Your task to perform on an android device: move a message to another label in the gmail app Image 0: 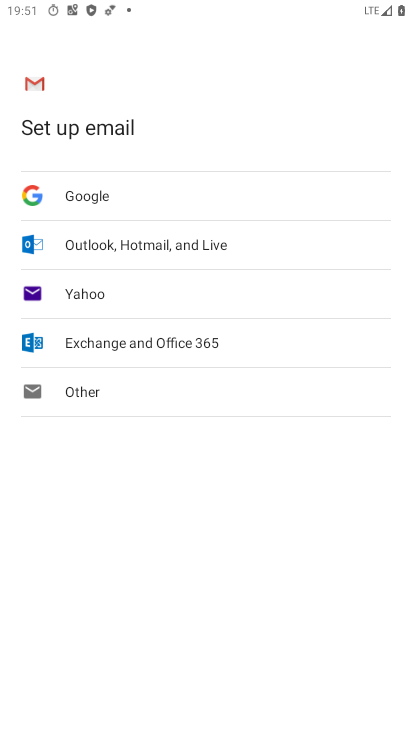
Step 0: press home button
Your task to perform on an android device: move a message to another label in the gmail app Image 1: 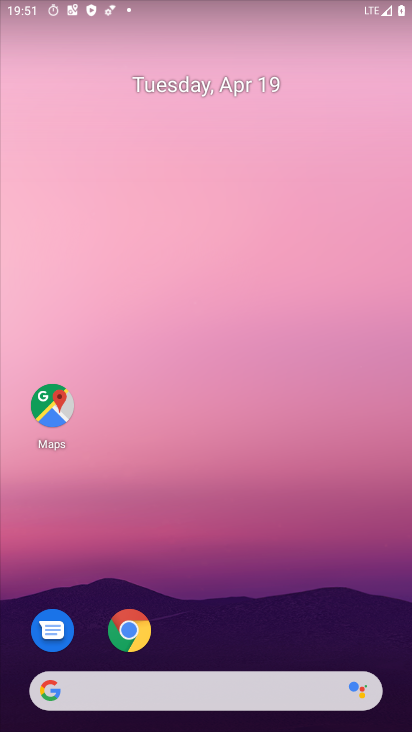
Step 1: drag from (213, 659) to (183, 71)
Your task to perform on an android device: move a message to another label in the gmail app Image 2: 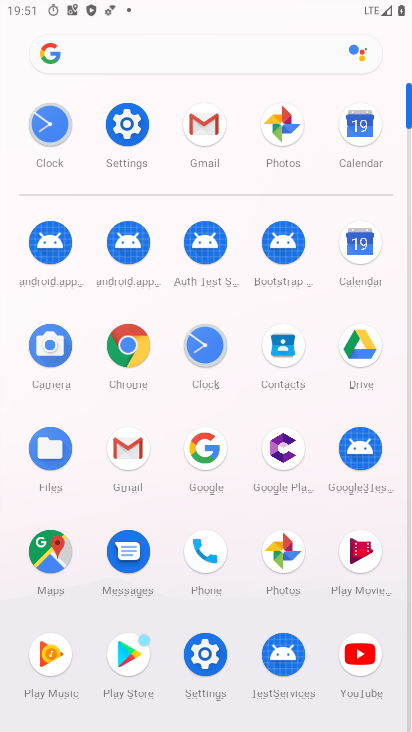
Step 2: click (127, 455)
Your task to perform on an android device: move a message to another label in the gmail app Image 3: 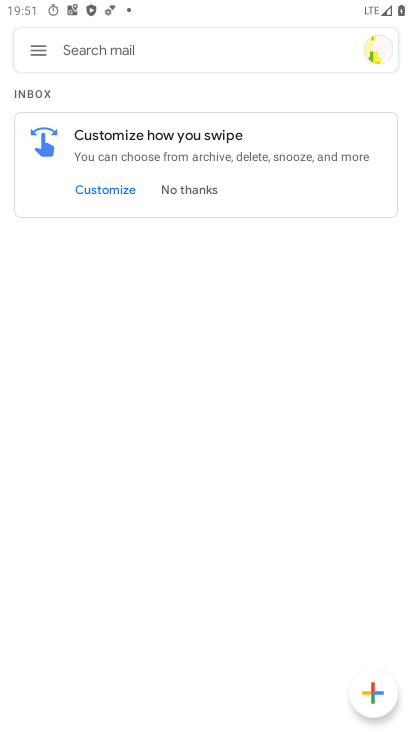
Step 3: task complete